Your task to perform on an android device: Go to network settings Image 0: 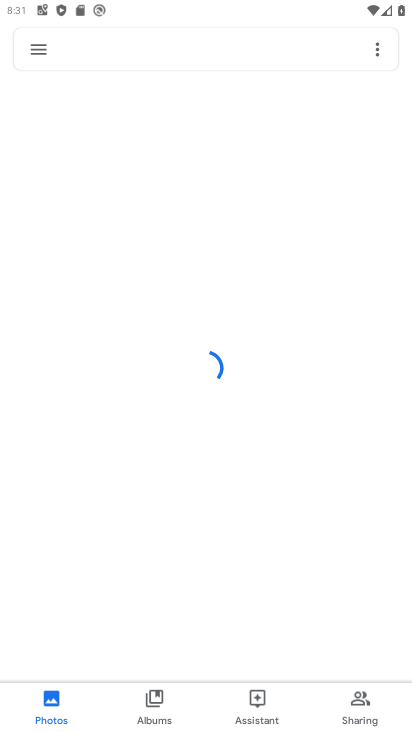
Step 0: press back button
Your task to perform on an android device: Go to network settings Image 1: 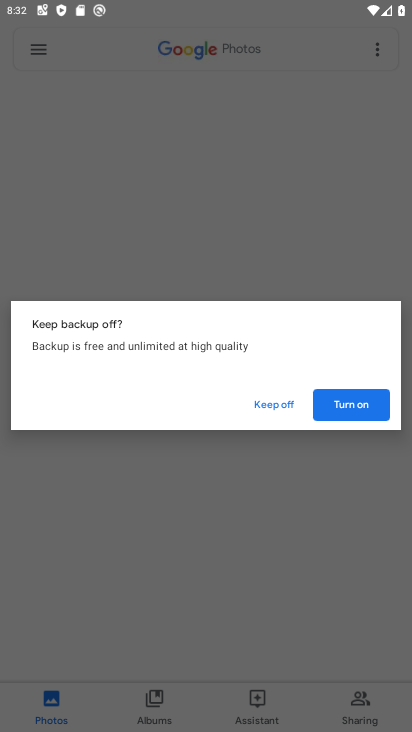
Step 1: press home button
Your task to perform on an android device: Go to network settings Image 2: 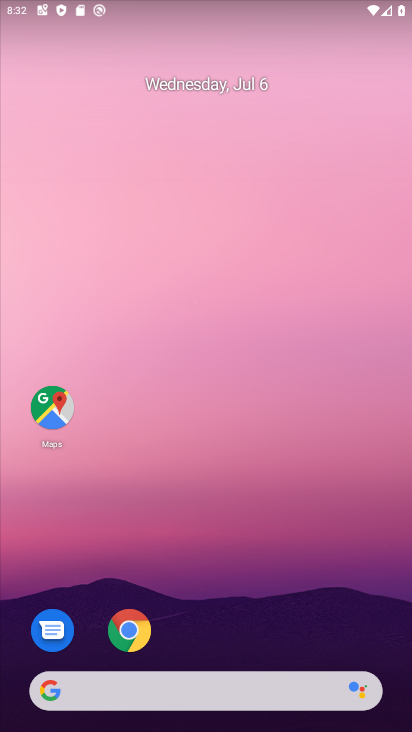
Step 2: drag from (384, 618) to (331, 103)
Your task to perform on an android device: Go to network settings Image 3: 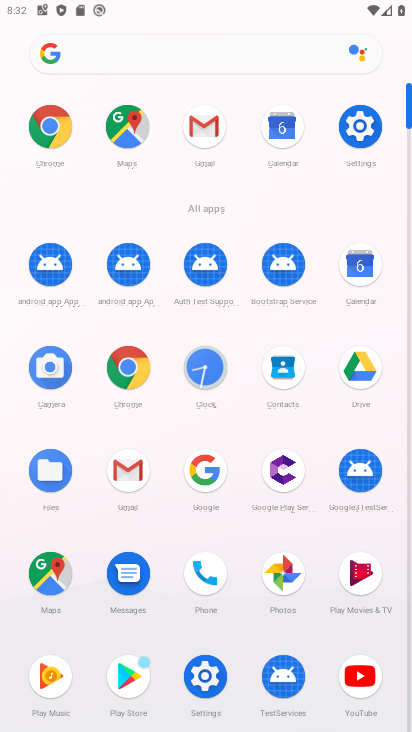
Step 3: click (368, 117)
Your task to perform on an android device: Go to network settings Image 4: 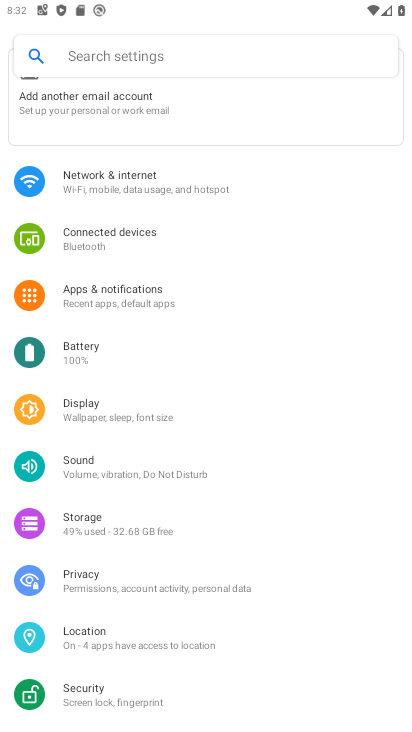
Step 4: click (111, 173)
Your task to perform on an android device: Go to network settings Image 5: 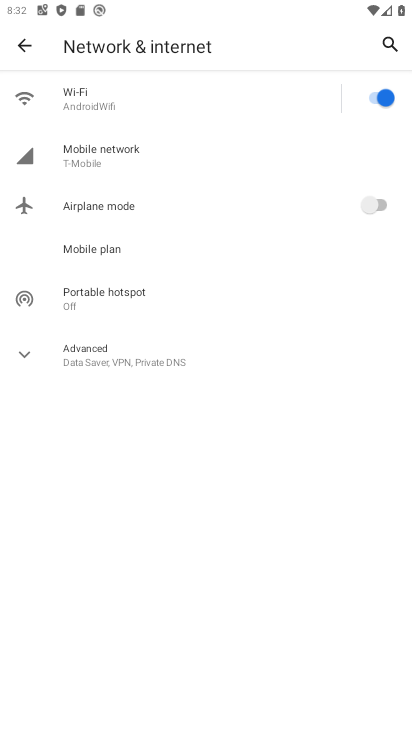
Step 5: click (85, 151)
Your task to perform on an android device: Go to network settings Image 6: 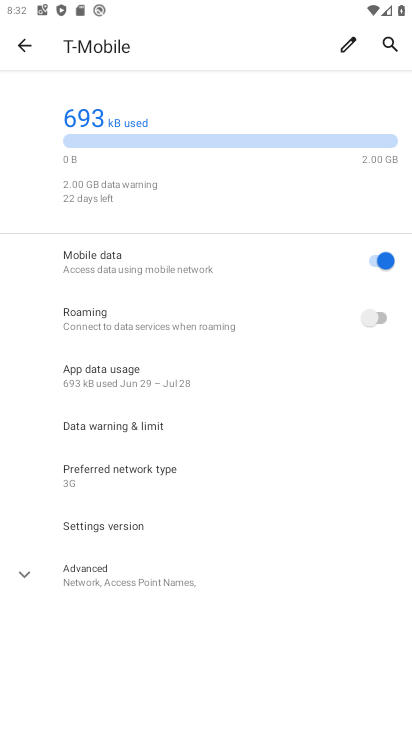
Step 6: click (17, 574)
Your task to perform on an android device: Go to network settings Image 7: 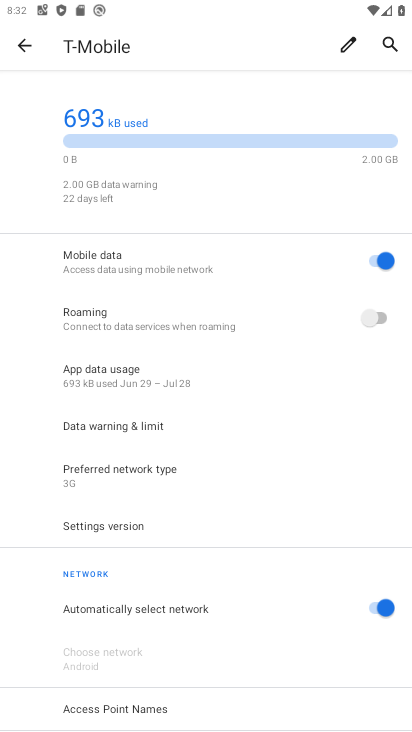
Step 7: task complete